Your task to perform on an android device: toggle data saver in the chrome app Image 0: 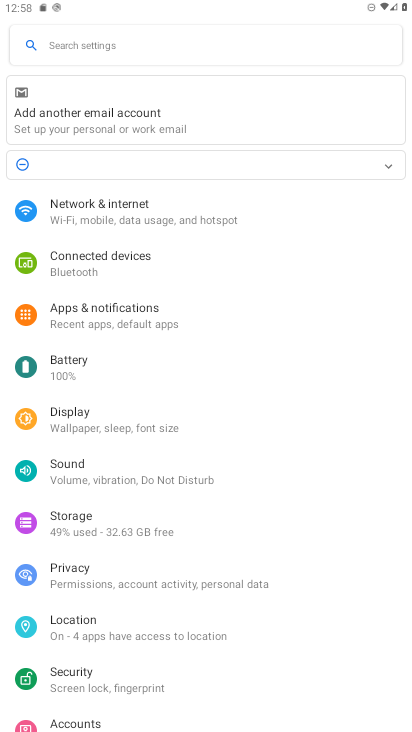
Step 0: click (386, 376)
Your task to perform on an android device: toggle data saver in the chrome app Image 1: 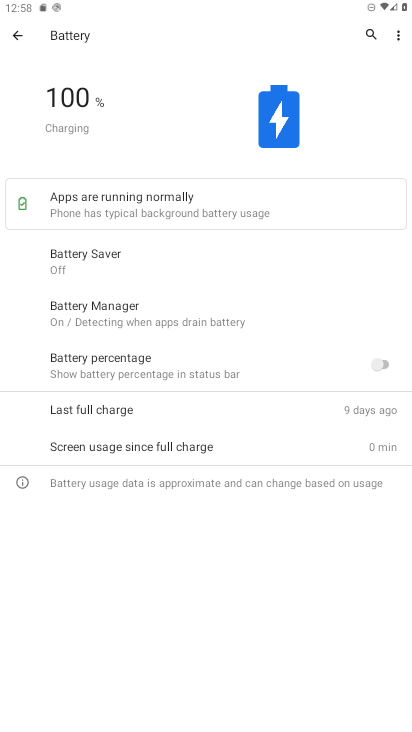
Step 1: press home button
Your task to perform on an android device: toggle data saver in the chrome app Image 2: 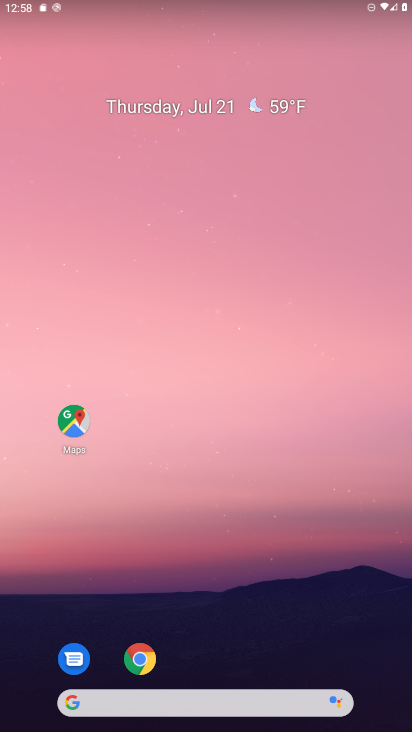
Step 2: click (131, 662)
Your task to perform on an android device: toggle data saver in the chrome app Image 3: 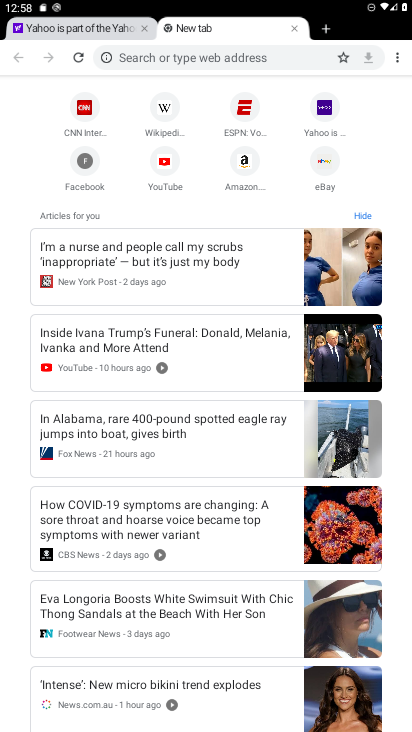
Step 3: click (397, 55)
Your task to perform on an android device: toggle data saver in the chrome app Image 4: 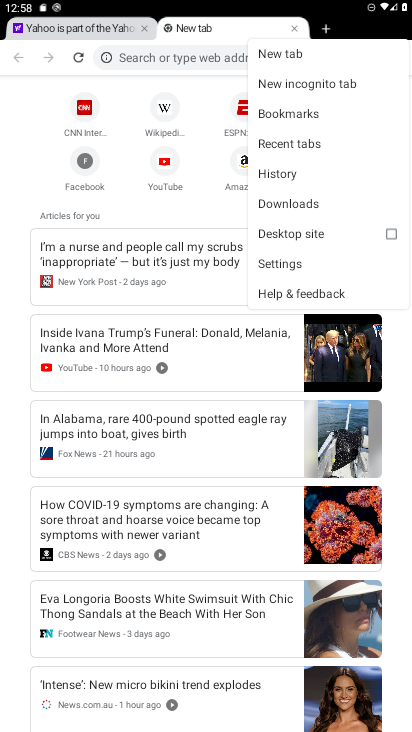
Step 4: click (275, 269)
Your task to perform on an android device: toggle data saver in the chrome app Image 5: 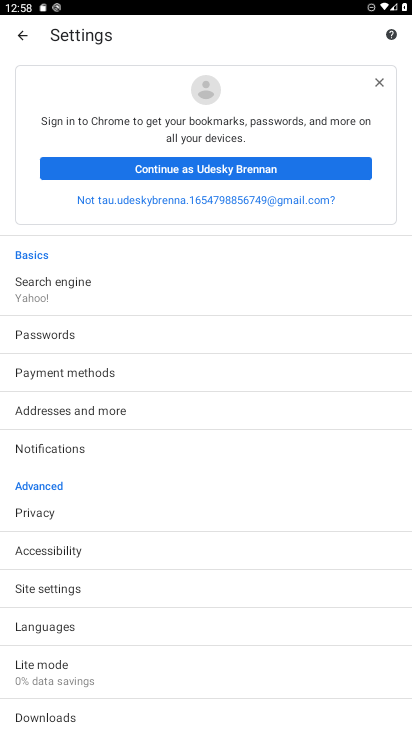
Step 5: click (31, 676)
Your task to perform on an android device: toggle data saver in the chrome app Image 6: 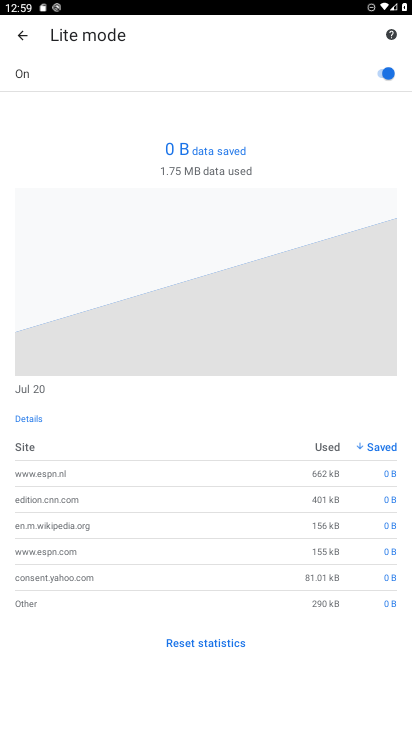
Step 6: click (383, 79)
Your task to perform on an android device: toggle data saver in the chrome app Image 7: 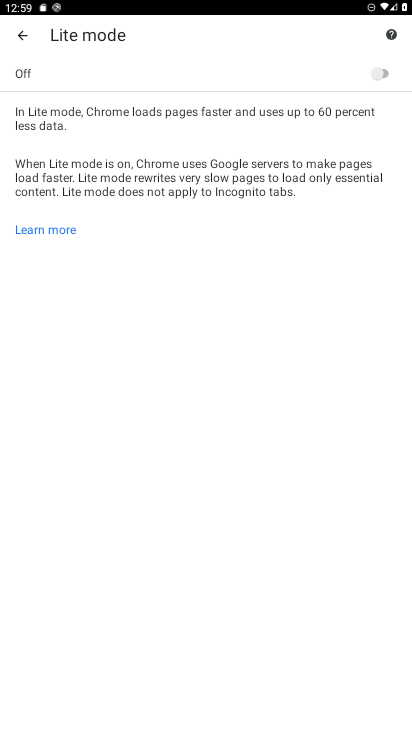
Step 7: task complete